Your task to perform on an android device: set an alarm Image 0: 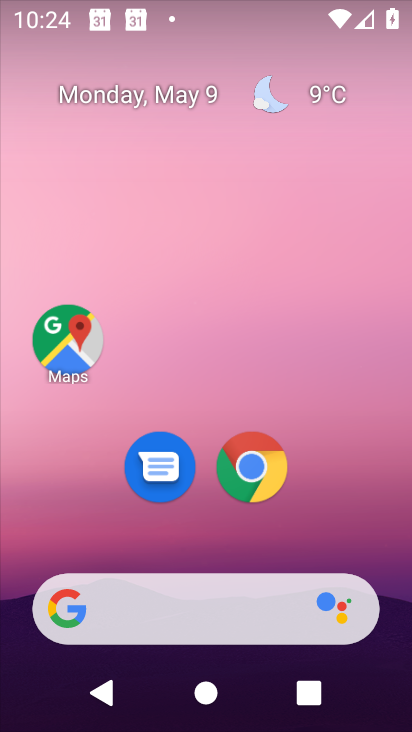
Step 0: drag from (381, 555) to (320, 3)
Your task to perform on an android device: set an alarm Image 1: 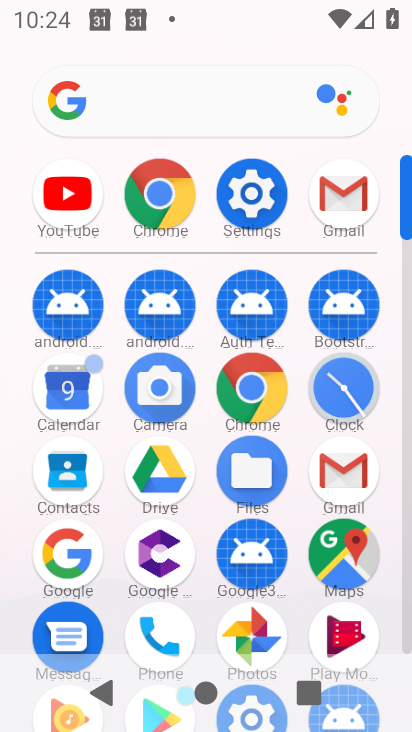
Step 1: click (323, 375)
Your task to perform on an android device: set an alarm Image 2: 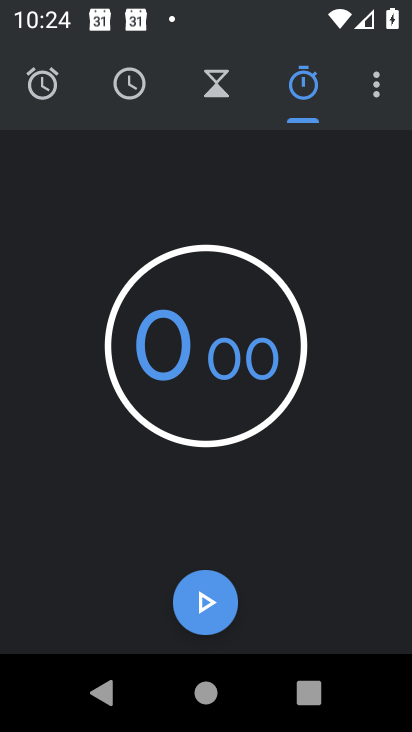
Step 2: click (55, 102)
Your task to perform on an android device: set an alarm Image 3: 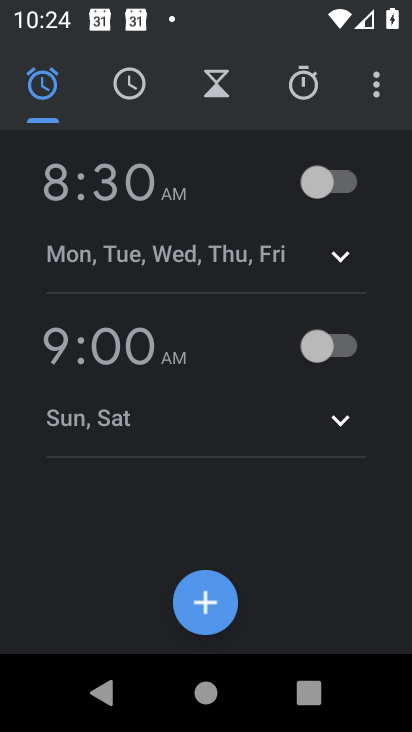
Step 3: click (212, 598)
Your task to perform on an android device: set an alarm Image 4: 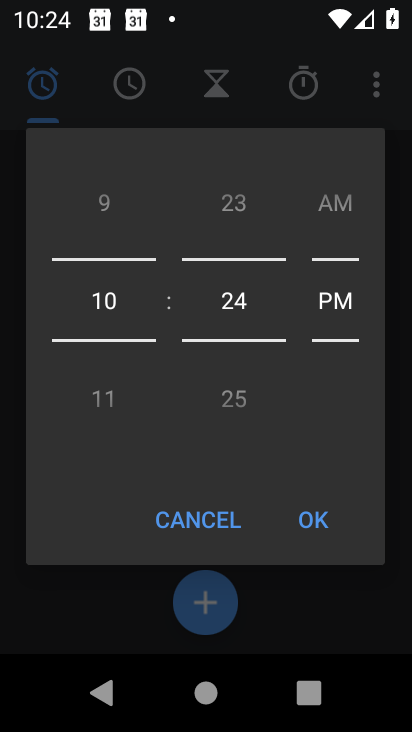
Step 4: drag from (103, 298) to (66, 589)
Your task to perform on an android device: set an alarm Image 5: 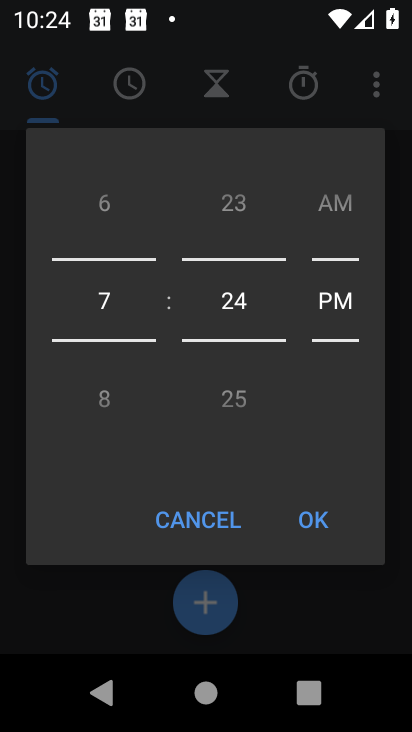
Step 5: drag from (92, 303) to (104, 507)
Your task to perform on an android device: set an alarm Image 6: 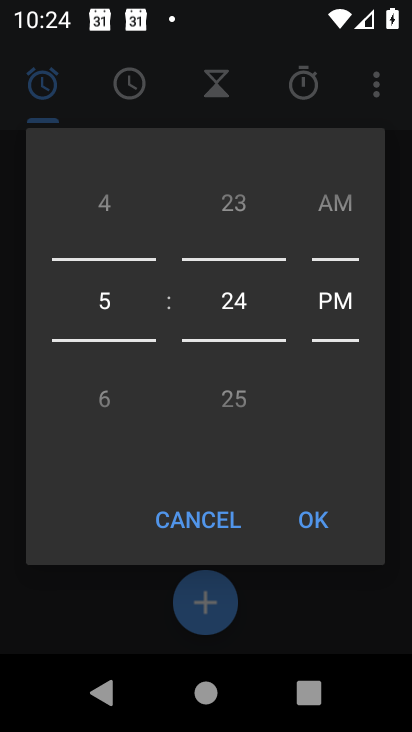
Step 6: drag from (237, 297) to (195, 702)
Your task to perform on an android device: set an alarm Image 7: 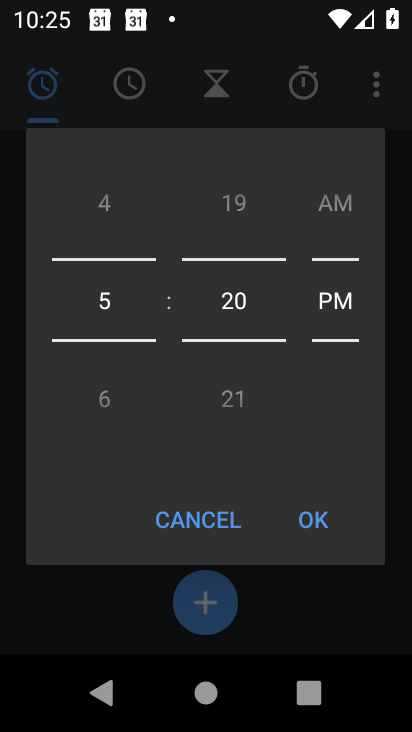
Step 7: drag from (317, 299) to (346, 397)
Your task to perform on an android device: set an alarm Image 8: 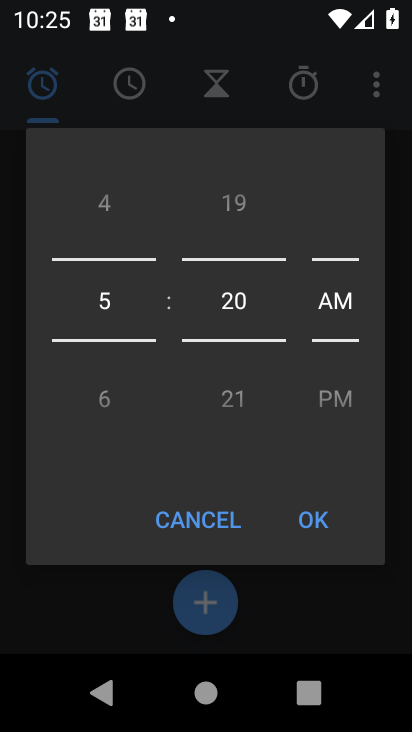
Step 8: click (312, 522)
Your task to perform on an android device: set an alarm Image 9: 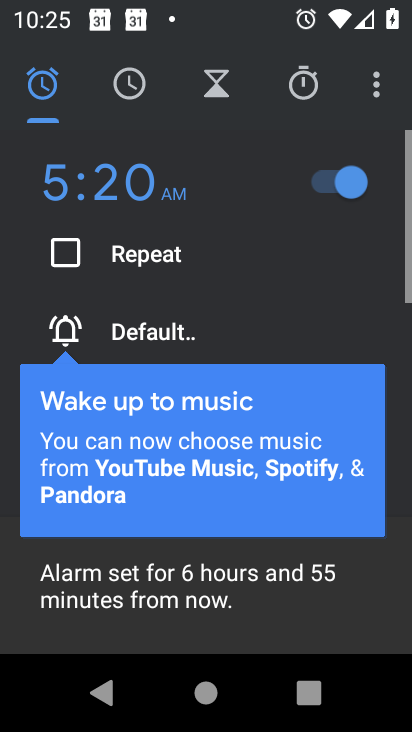
Step 9: task complete